Your task to perform on an android device: turn off airplane mode Image 0: 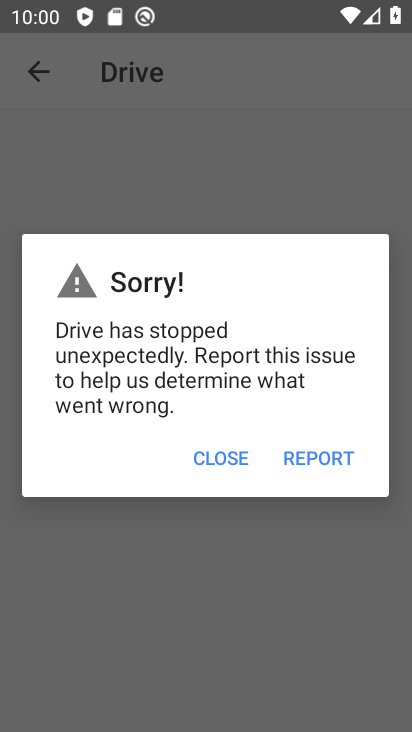
Step 0: press home button
Your task to perform on an android device: turn off airplane mode Image 1: 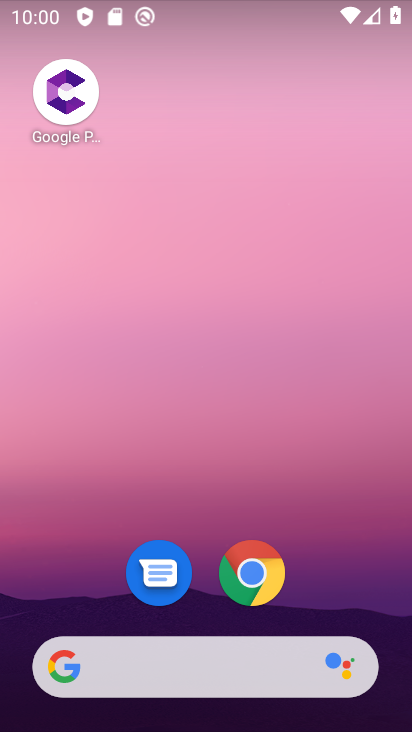
Step 1: drag from (216, 595) to (179, 7)
Your task to perform on an android device: turn off airplane mode Image 2: 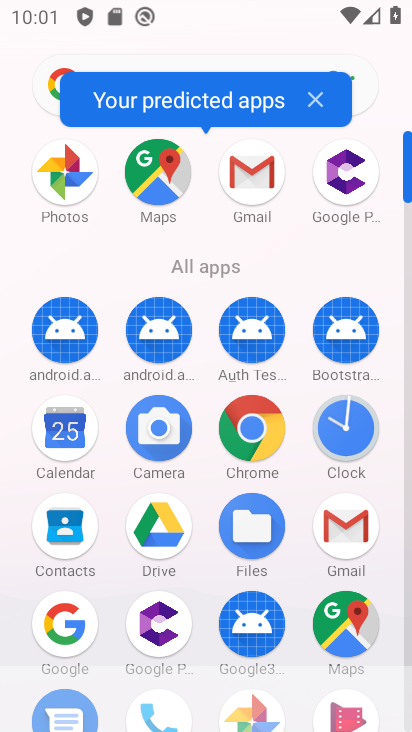
Step 2: drag from (210, 590) to (46, 17)
Your task to perform on an android device: turn off airplane mode Image 3: 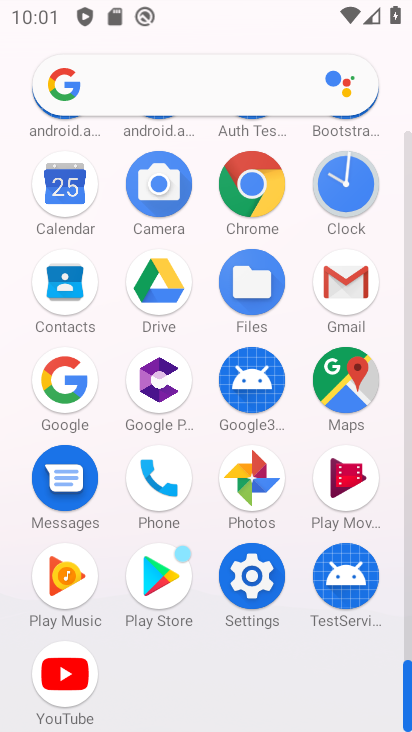
Step 3: click (262, 565)
Your task to perform on an android device: turn off airplane mode Image 4: 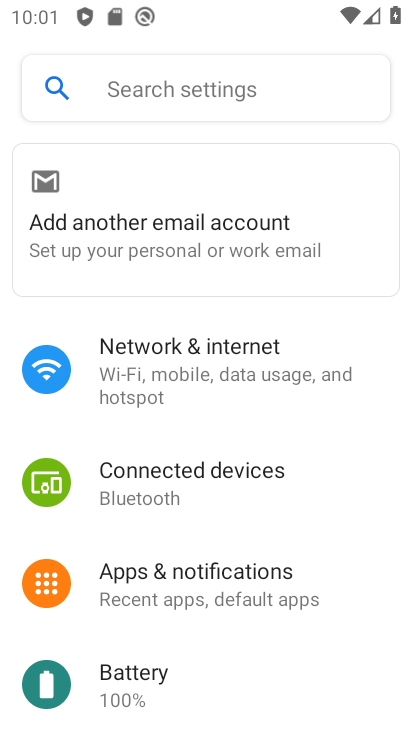
Step 4: click (147, 389)
Your task to perform on an android device: turn off airplane mode Image 5: 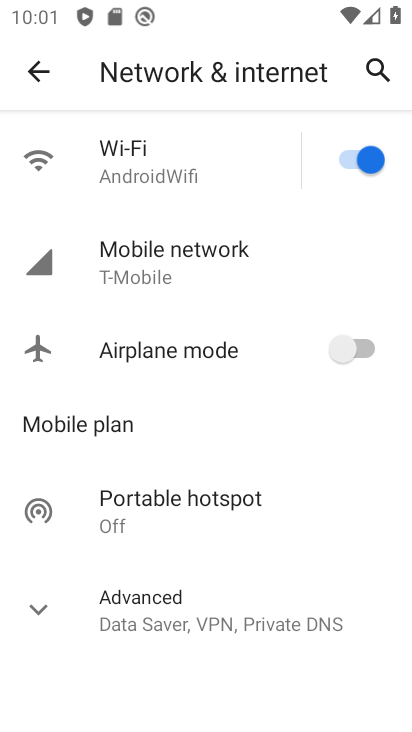
Step 5: task complete